Your task to perform on an android device: toggle javascript in the chrome app Image 0: 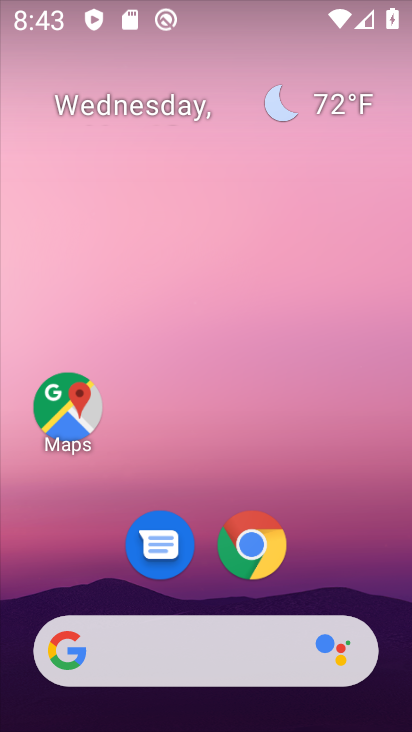
Step 0: click (345, 169)
Your task to perform on an android device: toggle javascript in the chrome app Image 1: 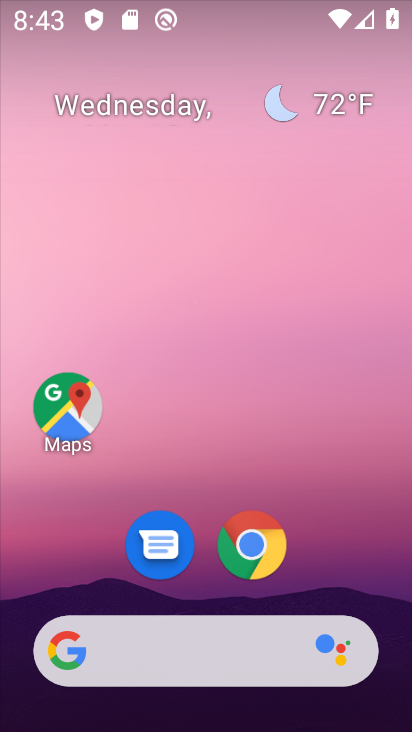
Step 1: drag from (341, 695) to (154, 59)
Your task to perform on an android device: toggle javascript in the chrome app Image 2: 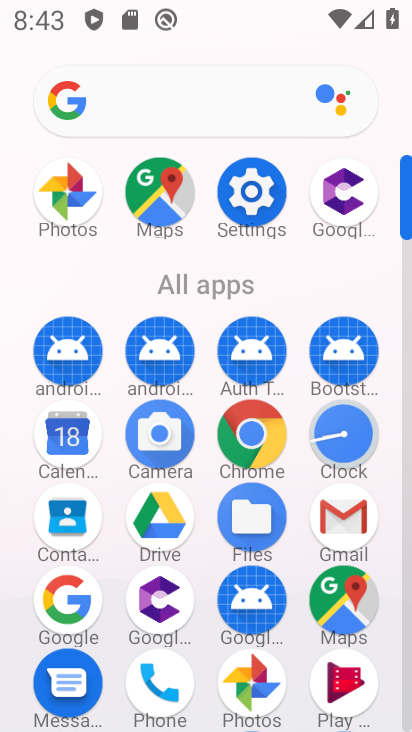
Step 2: click (235, 444)
Your task to perform on an android device: toggle javascript in the chrome app Image 3: 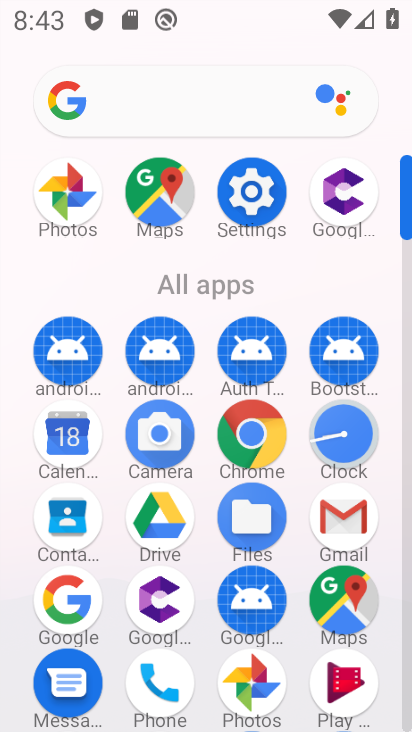
Step 3: click (235, 443)
Your task to perform on an android device: toggle javascript in the chrome app Image 4: 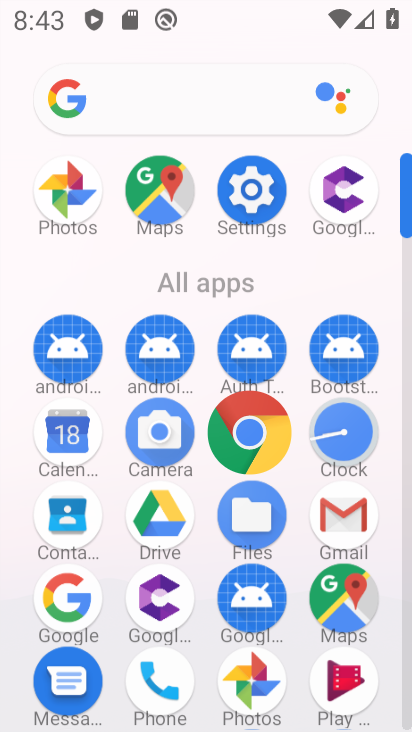
Step 4: click (235, 443)
Your task to perform on an android device: toggle javascript in the chrome app Image 5: 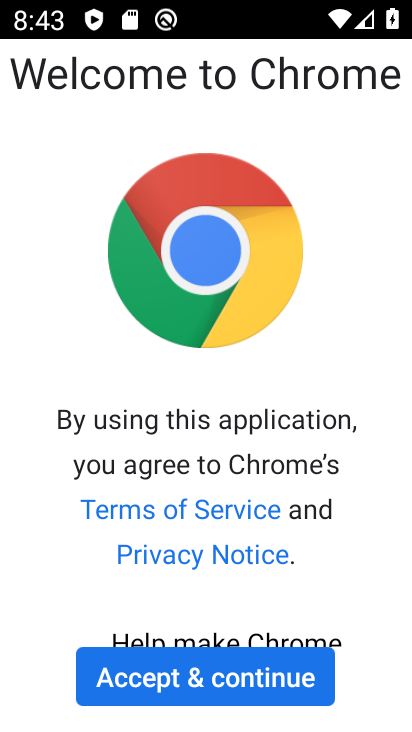
Step 5: click (204, 672)
Your task to perform on an android device: toggle javascript in the chrome app Image 6: 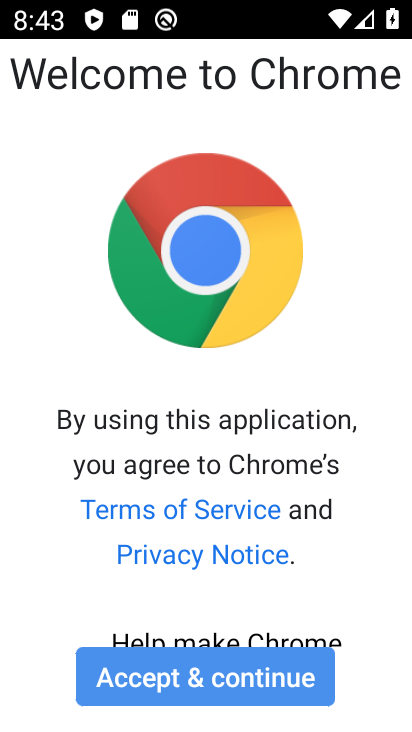
Step 6: click (228, 677)
Your task to perform on an android device: toggle javascript in the chrome app Image 7: 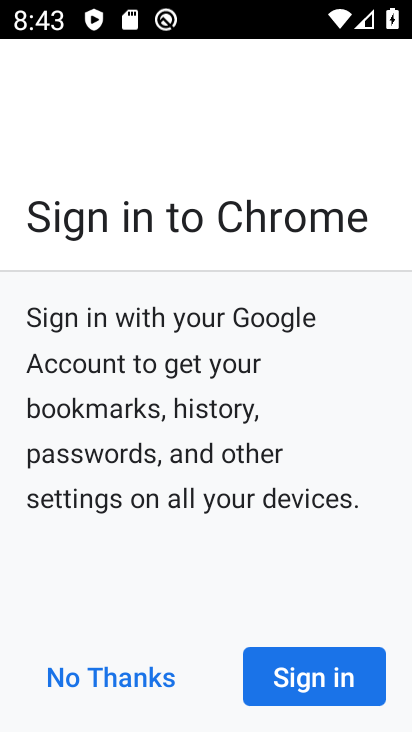
Step 7: click (228, 675)
Your task to perform on an android device: toggle javascript in the chrome app Image 8: 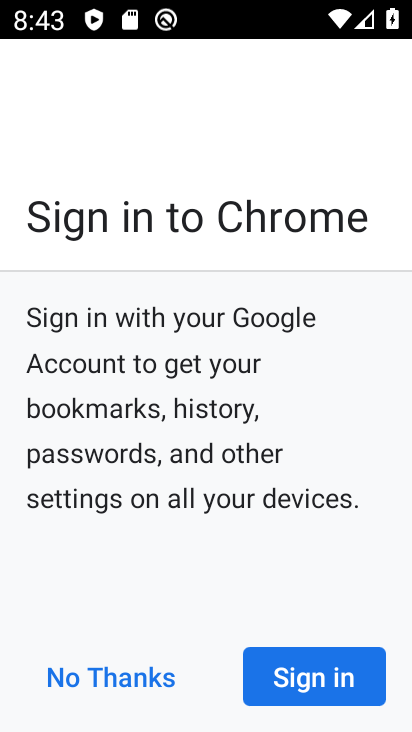
Step 8: click (228, 661)
Your task to perform on an android device: toggle javascript in the chrome app Image 9: 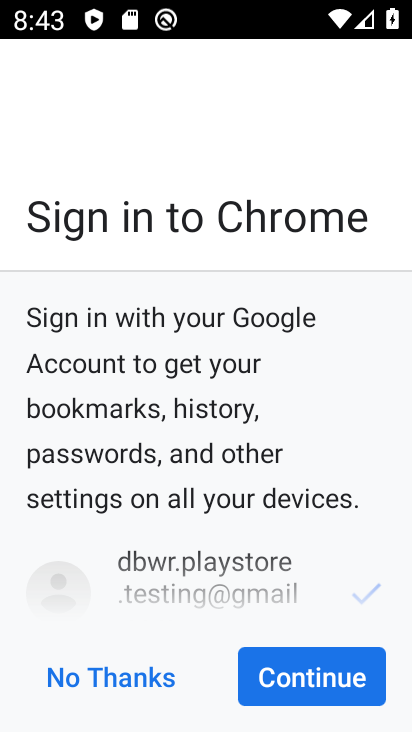
Step 9: click (311, 685)
Your task to perform on an android device: toggle javascript in the chrome app Image 10: 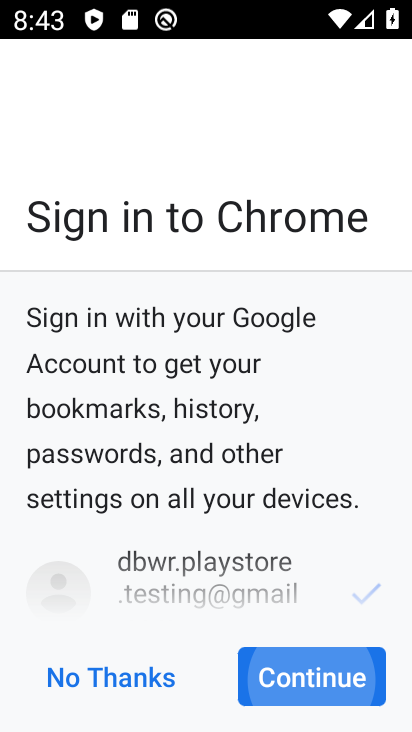
Step 10: click (313, 683)
Your task to perform on an android device: toggle javascript in the chrome app Image 11: 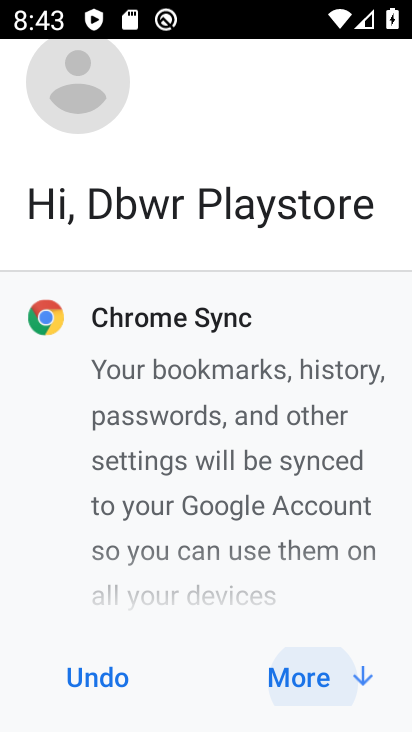
Step 11: click (314, 681)
Your task to perform on an android device: toggle javascript in the chrome app Image 12: 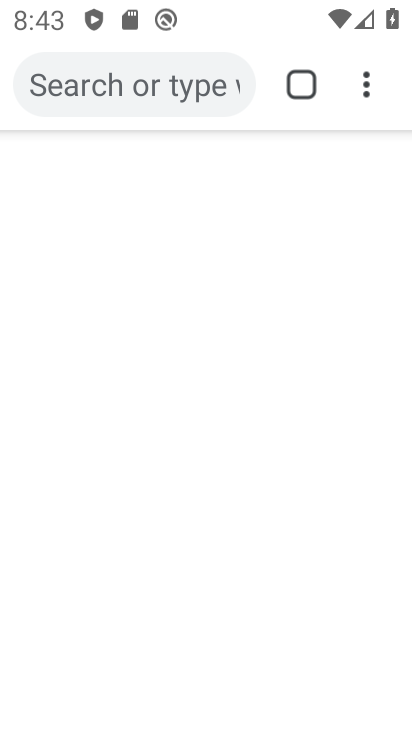
Step 12: click (314, 679)
Your task to perform on an android device: toggle javascript in the chrome app Image 13: 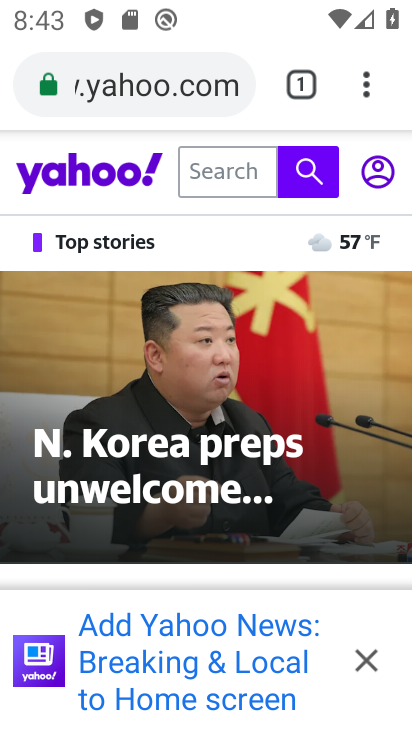
Step 13: drag from (359, 83) to (75, 585)
Your task to perform on an android device: toggle javascript in the chrome app Image 14: 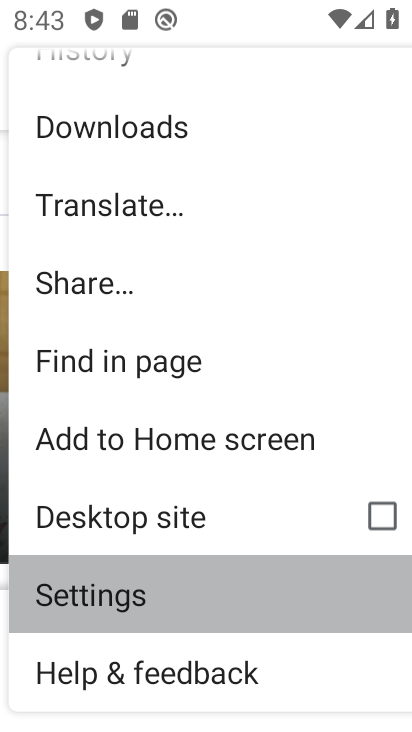
Step 14: click (76, 584)
Your task to perform on an android device: toggle javascript in the chrome app Image 15: 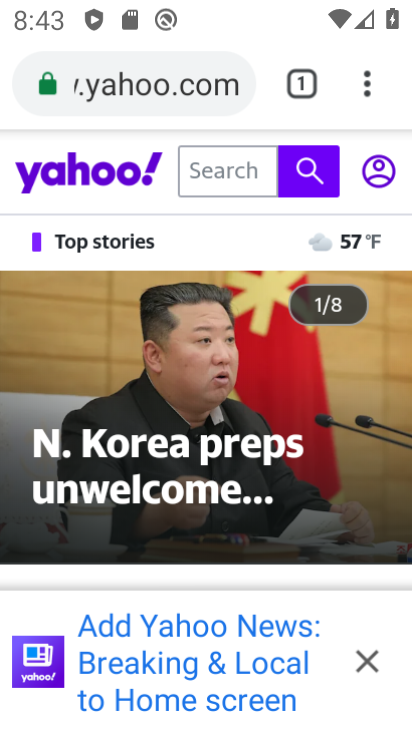
Step 15: click (76, 583)
Your task to perform on an android device: toggle javascript in the chrome app Image 16: 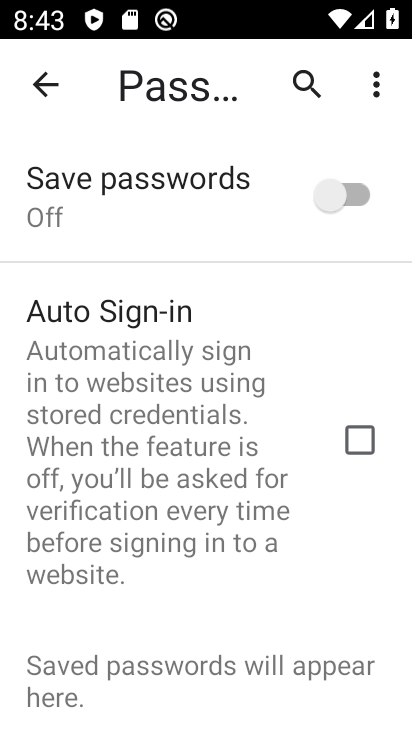
Step 16: click (40, 81)
Your task to perform on an android device: toggle javascript in the chrome app Image 17: 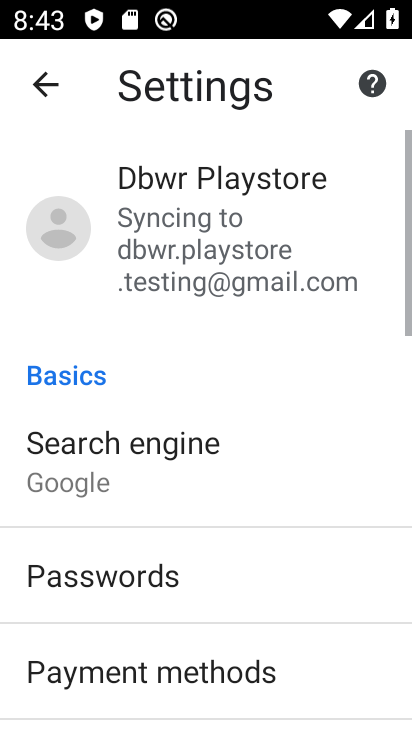
Step 17: drag from (196, 581) to (149, 265)
Your task to perform on an android device: toggle javascript in the chrome app Image 18: 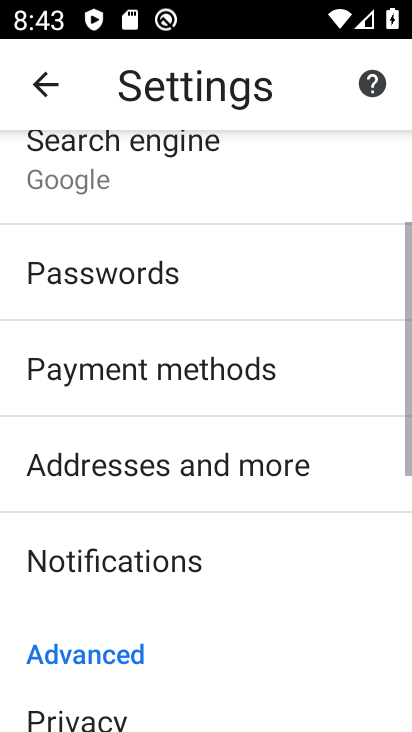
Step 18: drag from (179, 506) to (173, 176)
Your task to perform on an android device: toggle javascript in the chrome app Image 19: 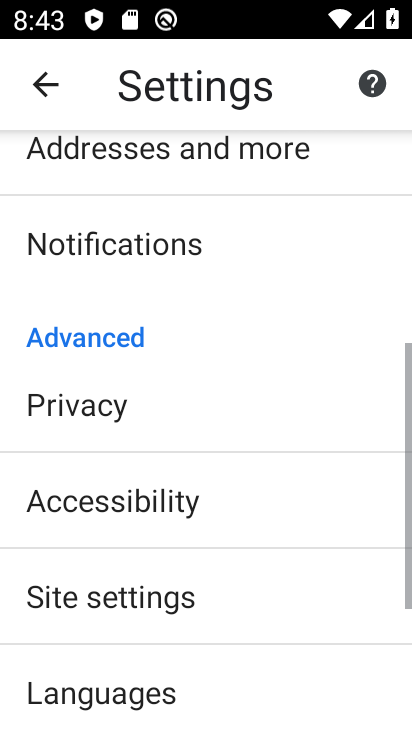
Step 19: click (198, 191)
Your task to perform on an android device: toggle javascript in the chrome app Image 20: 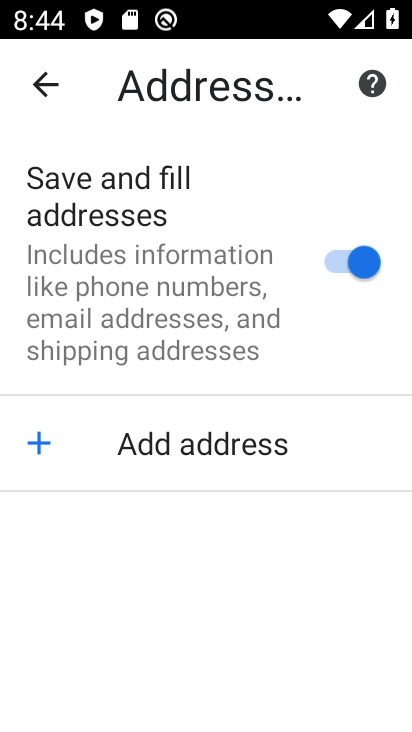
Step 20: click (93, 591)
Your task to perform on an android device: toggle javascript in the chrome app Image 21: 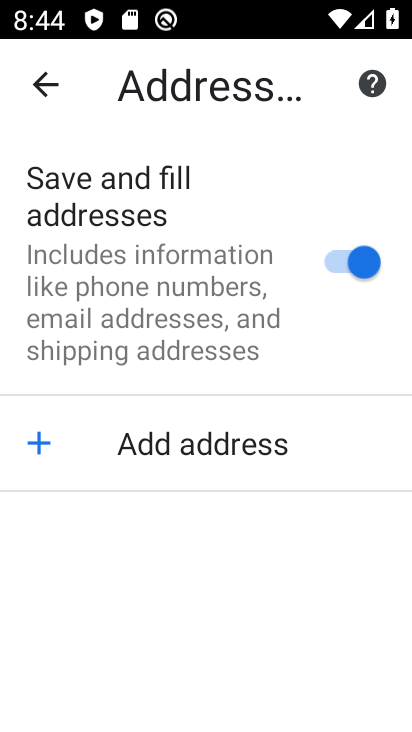
Step 21: click (38, 86)
Your task to perform on an android device: toggle javascript in the chrome app Image 22: 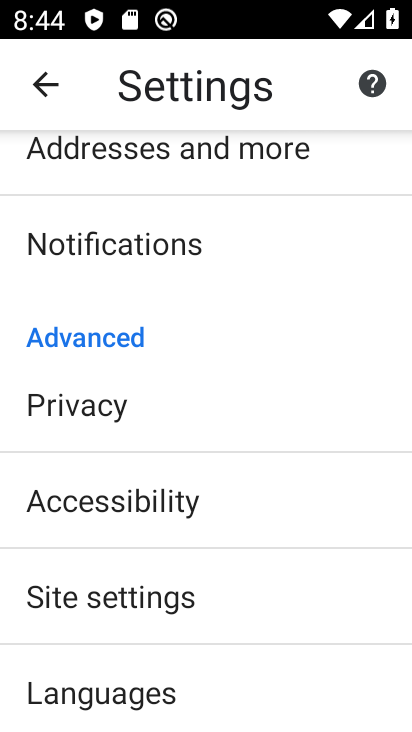
Step 22: click (115, 597)
Your task to perform on an android device: toggle javascript in the chrome app Image 23: 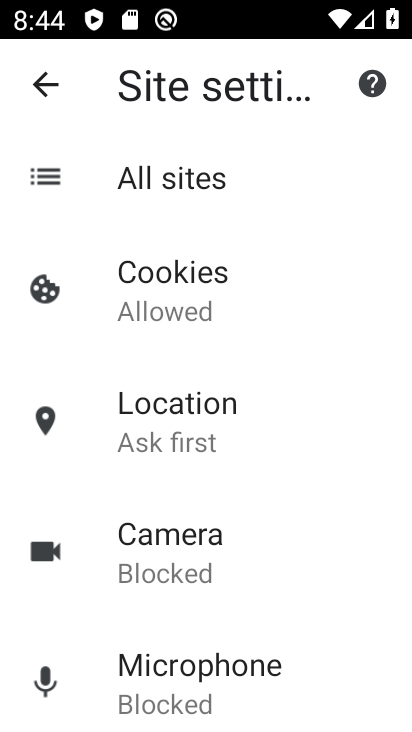
Step 23: drag from (194, 583) to (99, 144)
Your task to perform on an android device: toggle javascript in the chrome app Image 24: 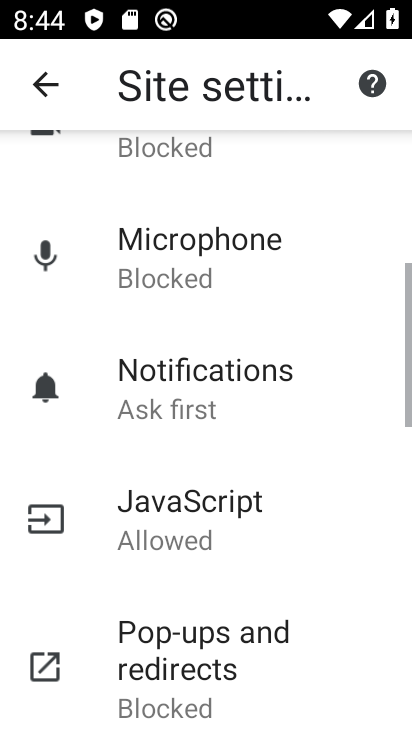
Step 24: drag from (220, 459) to (220, 140)
Your task to perform on an android device: toggle javascript in the chrome app Image 25: 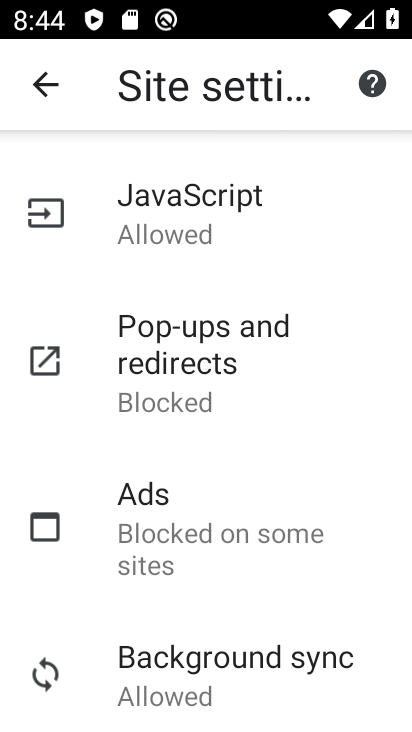
Step 25: click (160, 207)
Your task to perform on an android device: toggle javascript in the chrome app Image 26: 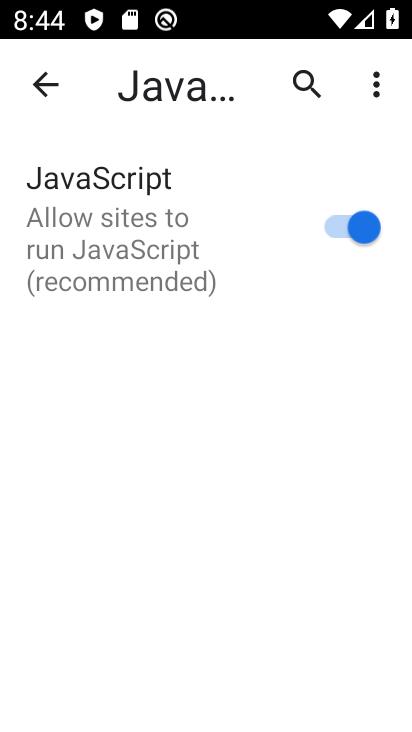
Step 26: click (359, 229)
Your task to perform on an android device: toggle javascript in the chrome app Image 27: 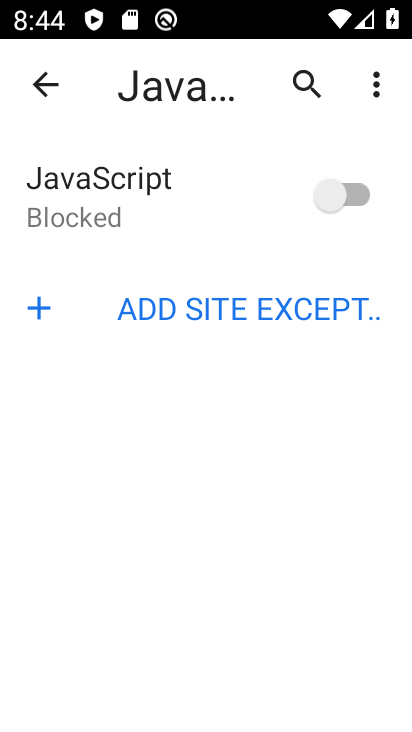
Step 27: task complete